Your task to perform on an android device: find snoozed emails in the gmail app Image 0: 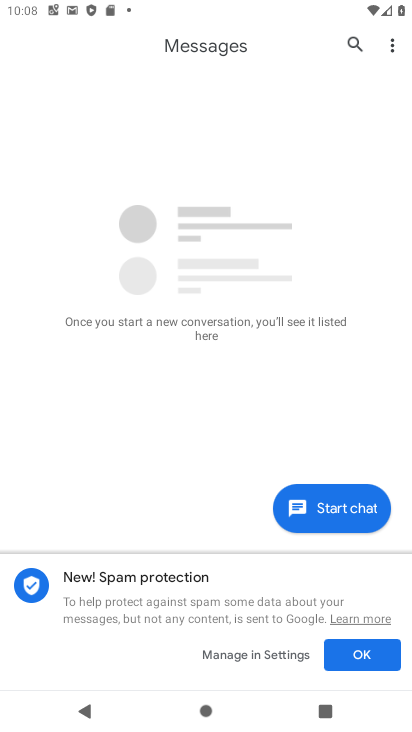
Step 0: press home button
Your task to perform on an android device: find snoozed emails in the gmail app Image 1: 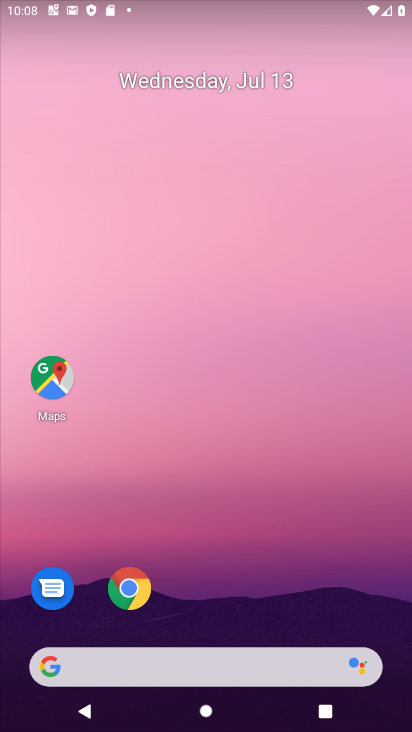
Step 1: drag from (278, 624) to (239, 3)
Your task to perform on an android device: find snoozed emails in the gmail app Image 2: 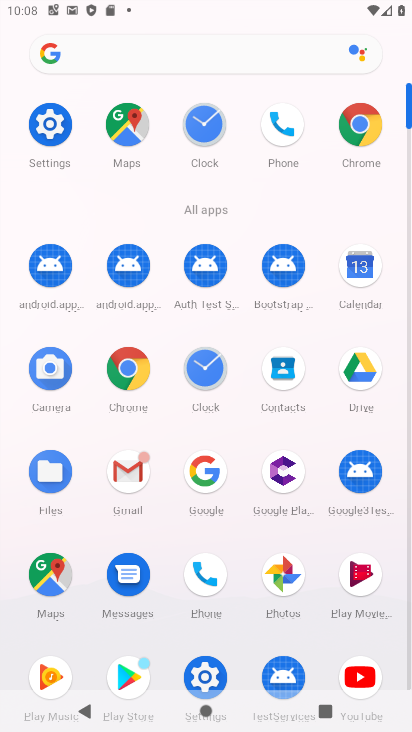
Step 2: click (126, 474)
Your task to perform on an android device: find snoozed emails in the gmail app Image 3: 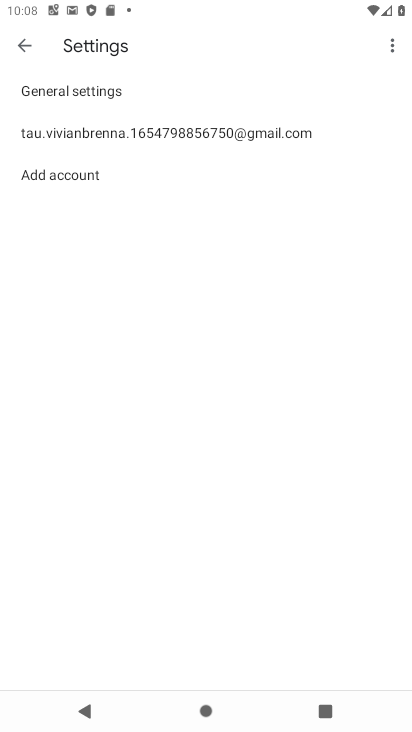
Step 3: click (24, 54)
Your task to perform on an android device: find snoozed emails in the gmail app Image 4: 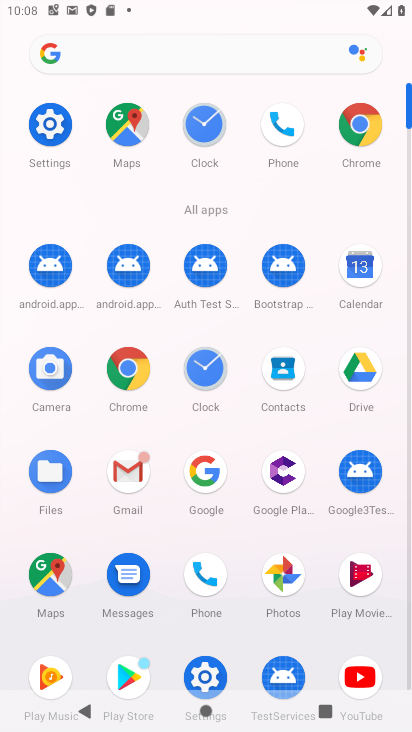
Step 4: click (136, 482)
Your task to perform on an android device: find snoozed emails in the gmail app Image 5: 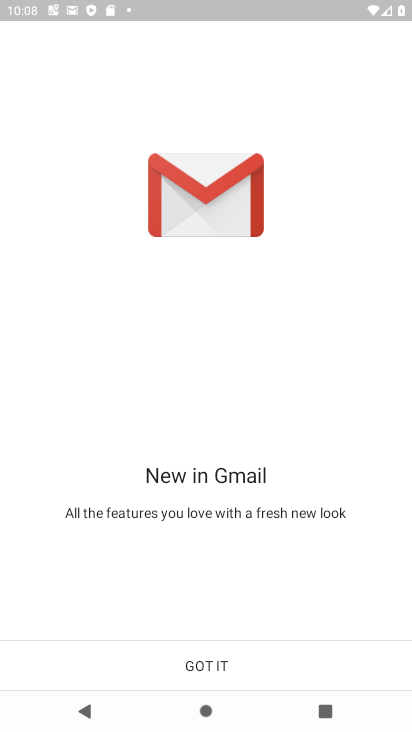
Step 5: click (212, 657)
Your task to perform on an android device: find snoozed emails in the gmail app Image 6: 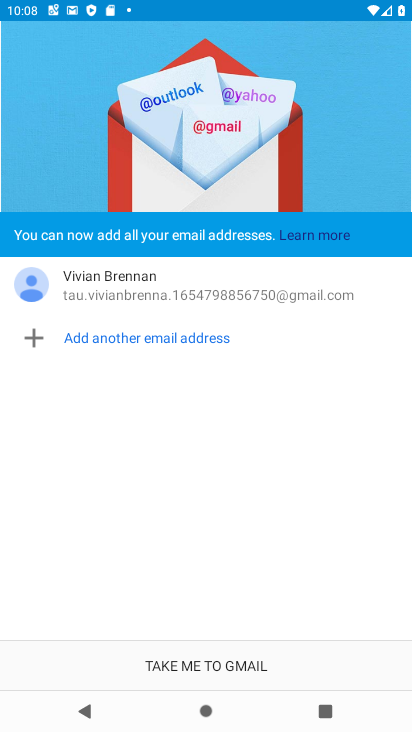
Step 6: click (215, 652)
Your task to perform on an android device: find snoozed emails in the gmail app Image 7: 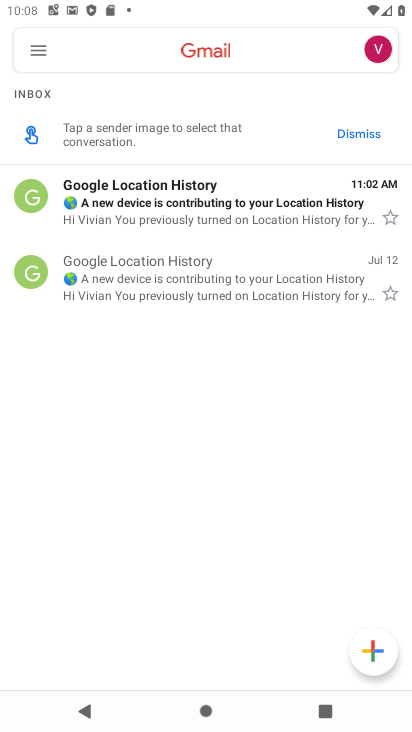
Step 7: click (33, 48)
Your task to perform on an android device: find snoozed emails in the gmail app Image 8: 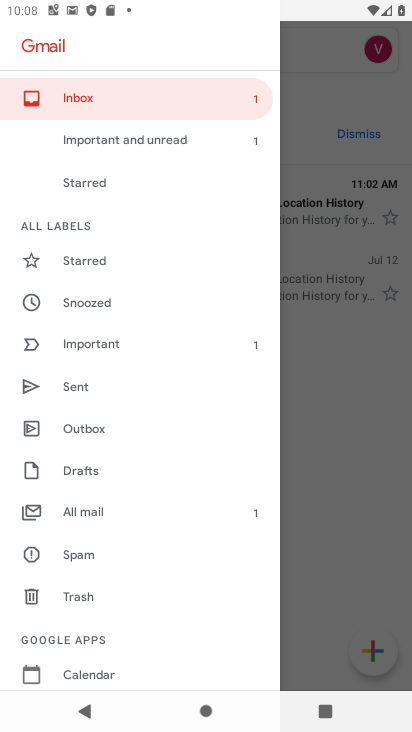
Step 8: click (95, 309)
Your task to perform on an android device: find snoozed emails in the gmail app Image 9: 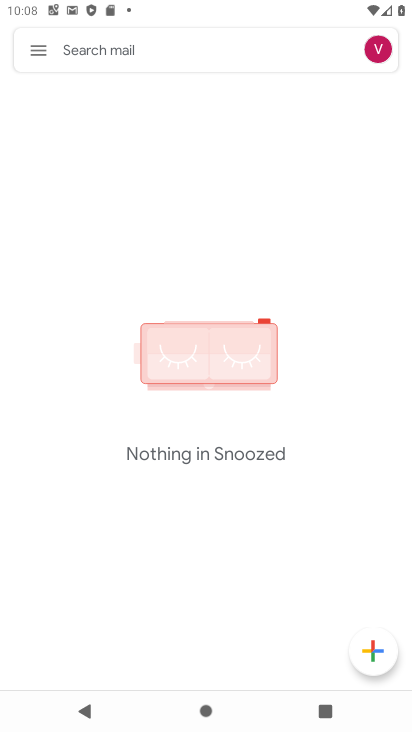
Step 9: task complete